Your task to perform on an android device: Show me popular games on the Play Store Image 0: 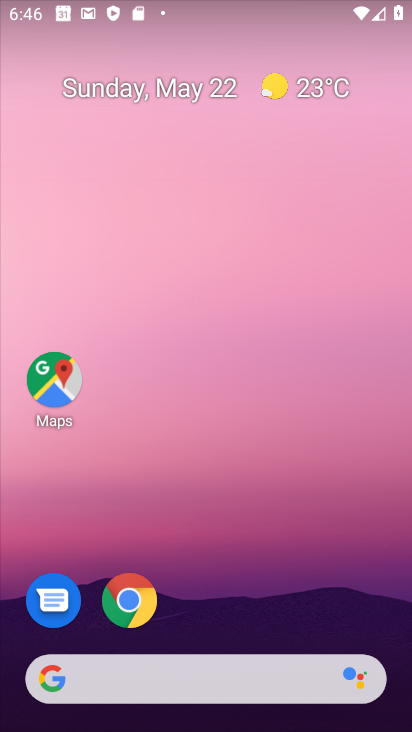
Step 0: drag from (361, 646) to (313, 3)
Your task to perform on an android device: Show me popular games on the Play Store Image 1: 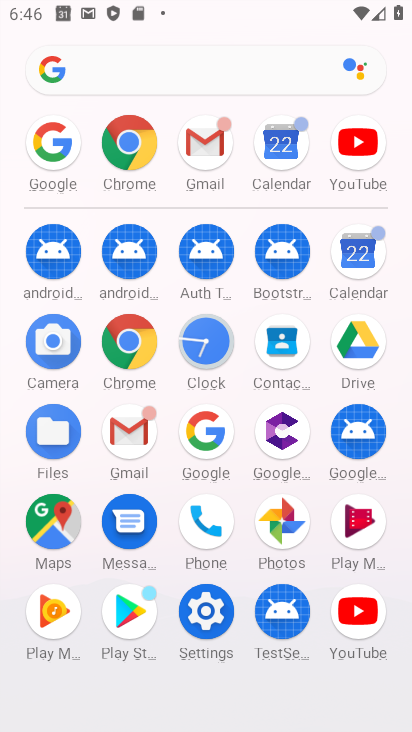
Step 1: click (126, 616)
Your task to perform on an android device: Show me popular games on the Play Store Image 2: 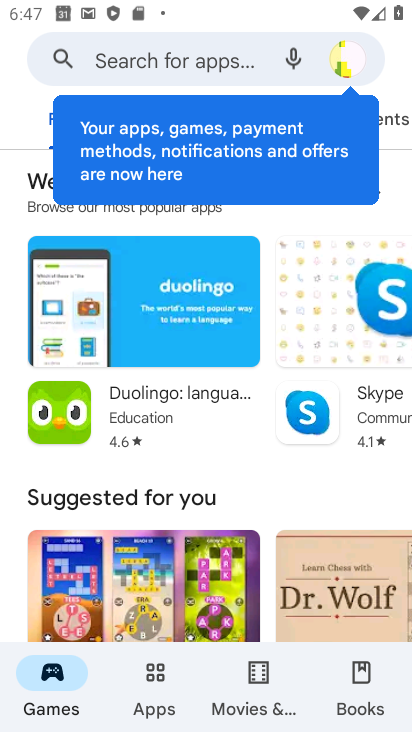
Step 2: task complete